Your task to perform on an android device: set the stopwatch Image 0: 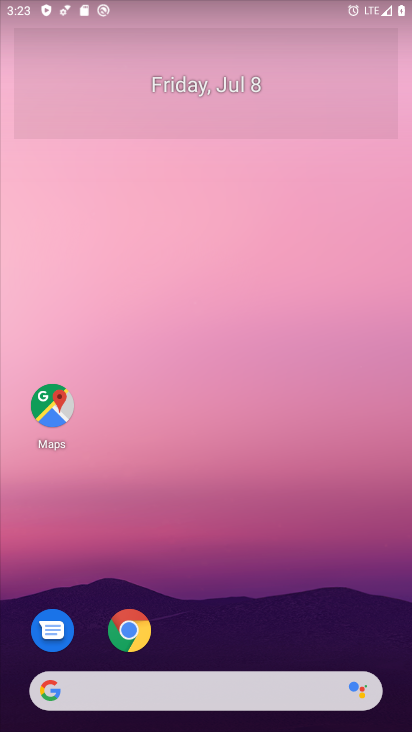
Step 0: drag from (246, 532) to (271, 159)
Your task to perform on an android device: set the stopwatch Image 1: 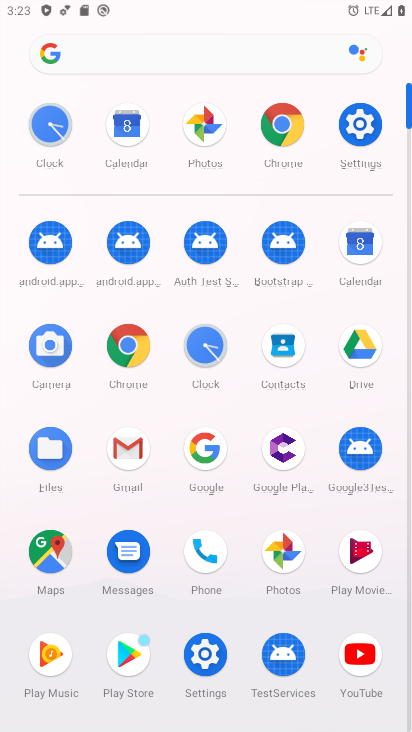
Step 1: click (210, 348)
Your task to perform on an android device: set the stopwatch Image 2: 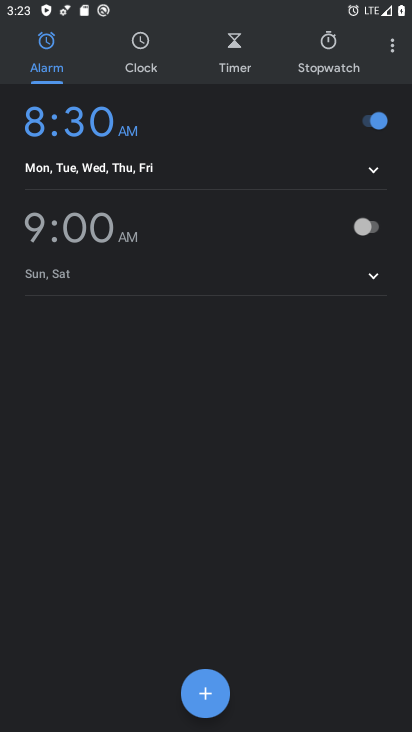
Step 2: click (324, 46)
Your task to perform on an android device: set the stopwatch Image 3: 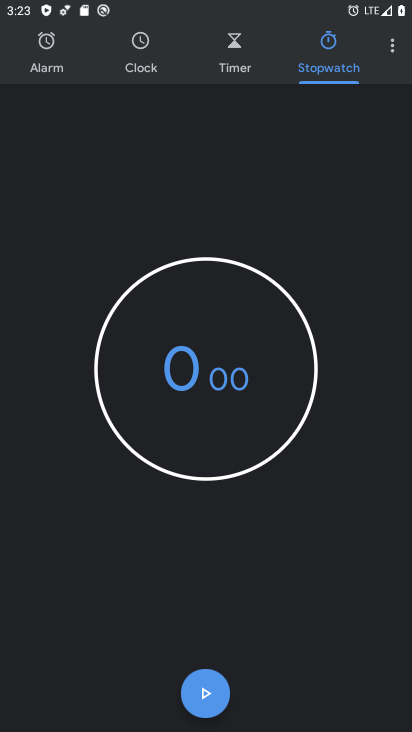
Step 3: click (211, 343)
Your task to perform on an android device: set the stopwatch Image 4: 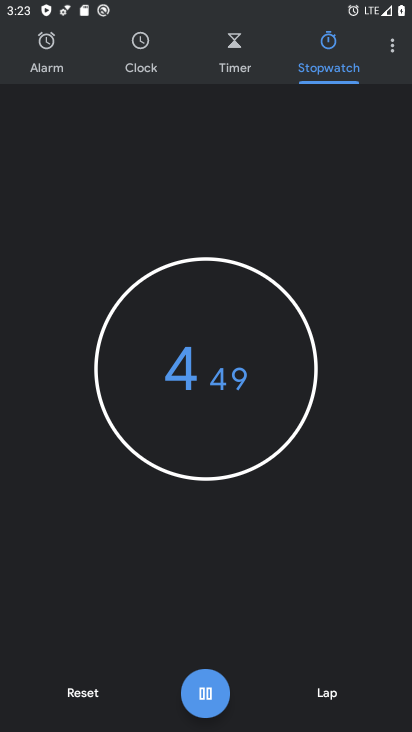
Step 4: task complete